Your task to perform on an android device: toggle wifi Image 0: 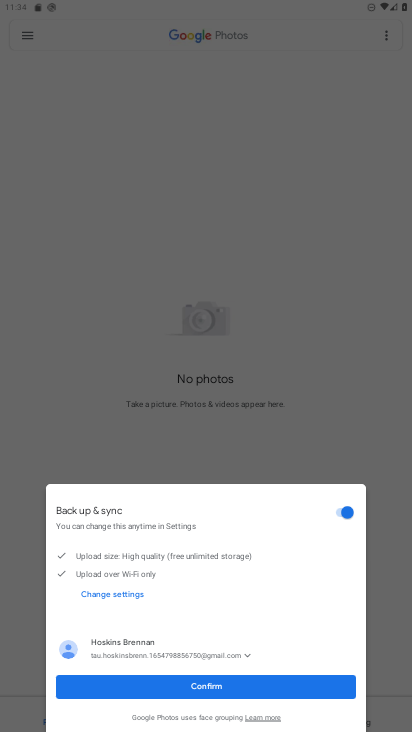
Step 0: press home button
Your task to perform on an android device: toggle wifi Image 1: 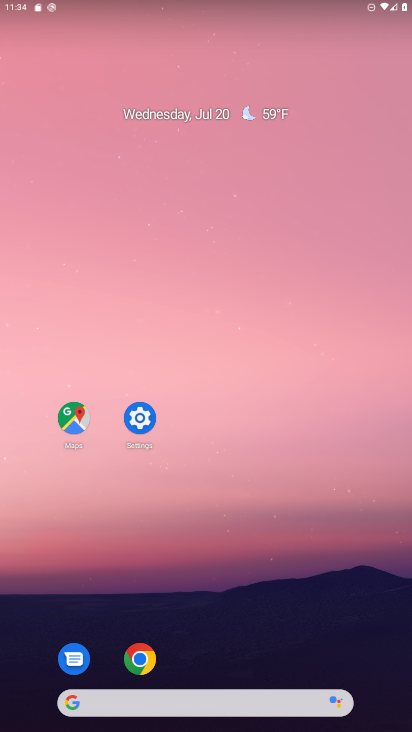
Step 1: click (134, 420)
Your task to perform on an android device: toggle wifi Image 2: 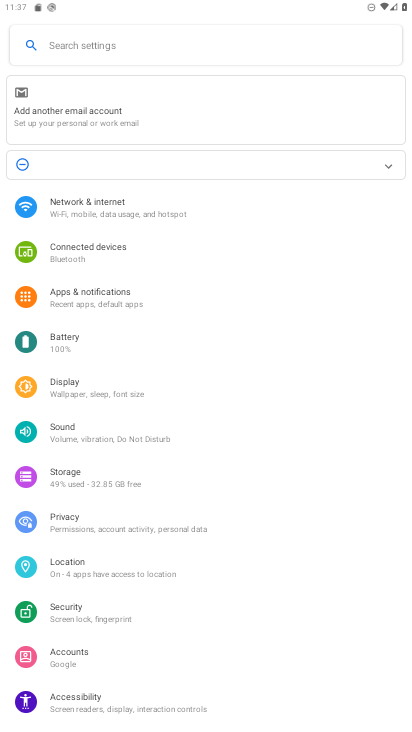
Step 2: click (102, 208)
Your task to perform on an android device: toggle wifi Image 3: 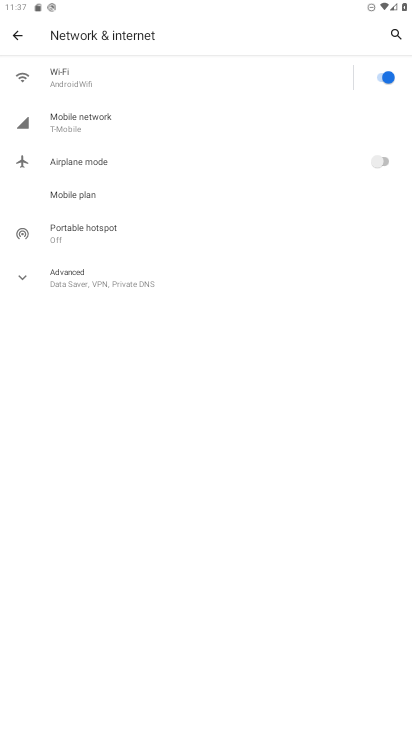
Step 3: click (379, 71)
Your task to perform on an android device: toggle wifi Image 4: 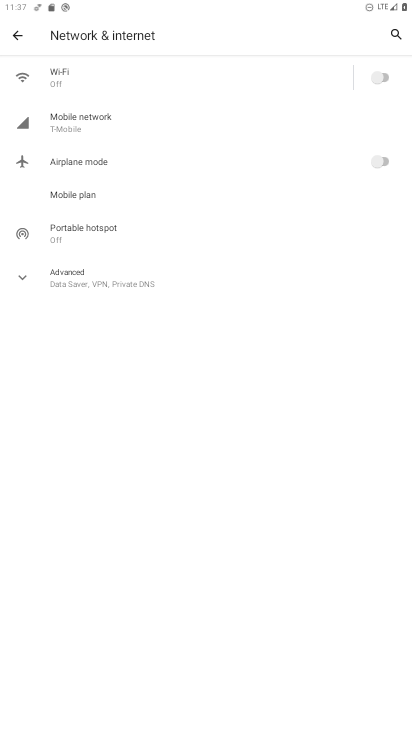
Step 4: task complete